Your task to perform on an android device: Open Android settings Image 0: 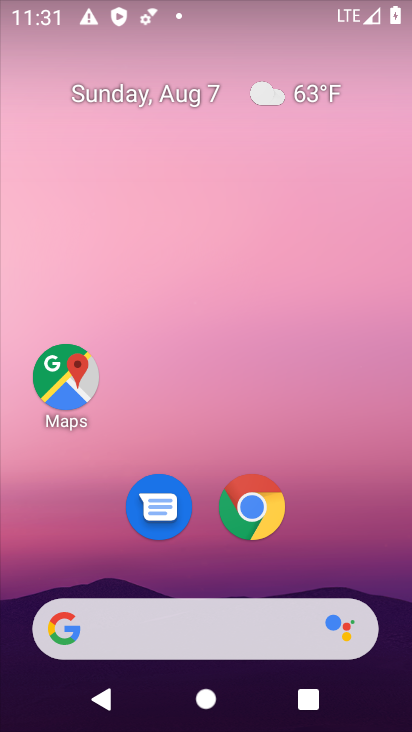
Step 0: drag from (381, 567) to (306, 43)
Your task to perform on an android device: Open Android settings Image 1: 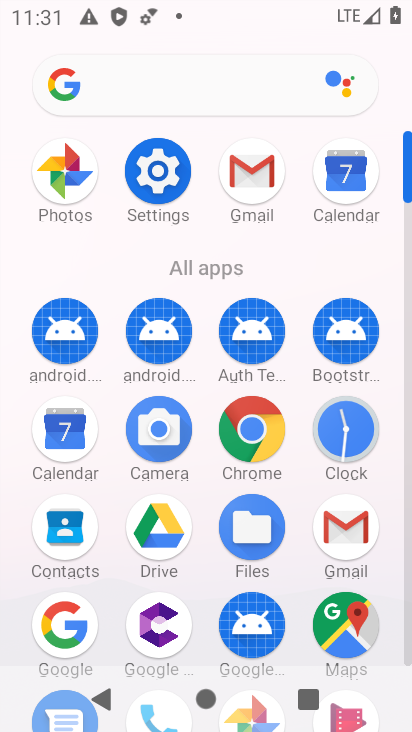
Step 1: click (153, 164)
Your task to perform on an android device: Open Android settings Image 2: 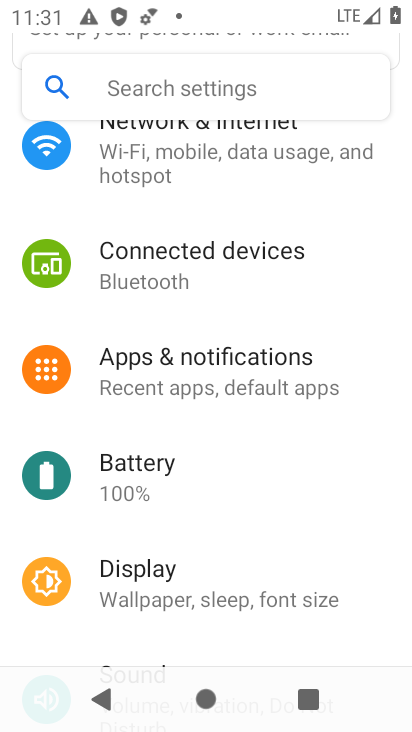
Step 2: task complete